Your task to perform on an android device: open app "Messenger Lite" (install if not already installed) and enter user name: "cataclysmic@outlook.com" and password: "victoriously" Image 0: 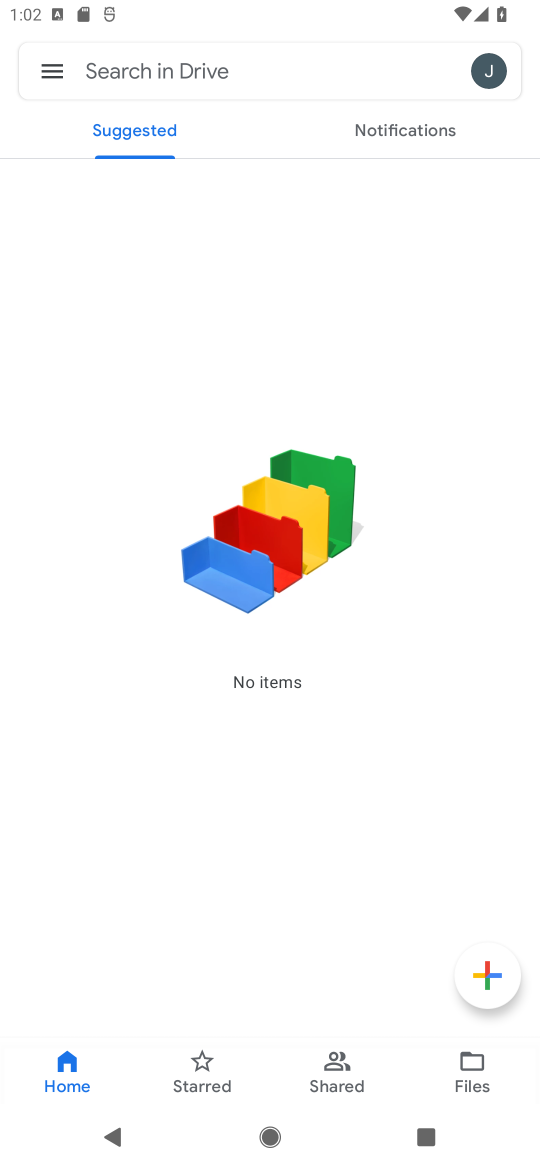
Step 0: press home button
Your task to perform on an android device: open app "Messenger Lite" (install if not already installed) and enter user name: "cataclysmic@outlook.com" and password: "victoriously" Image 1: 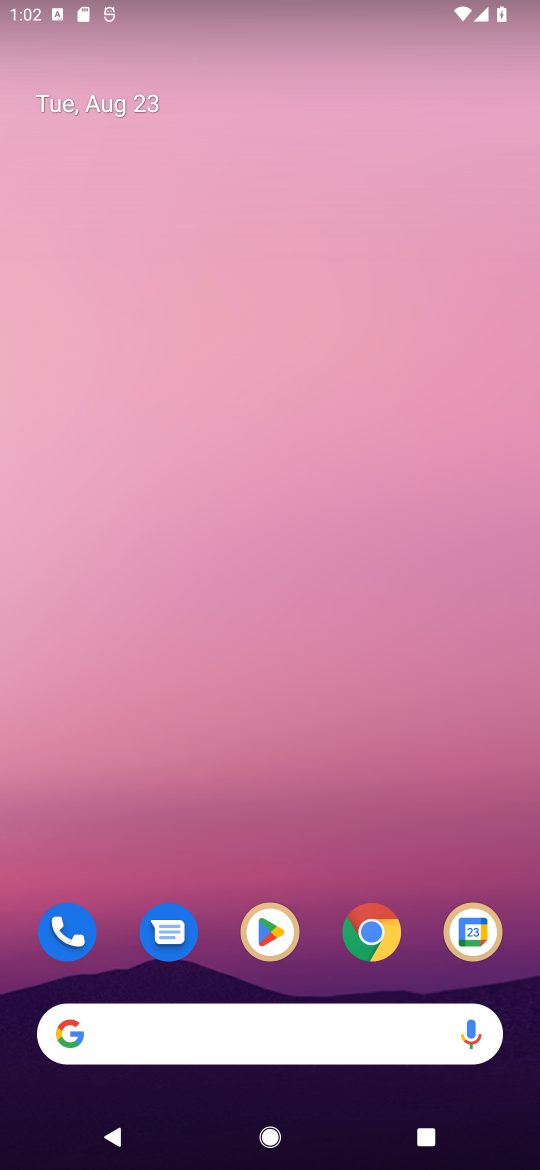
Step 1: click (268, 925)
Your task to perform on an android device: open app "Messenger Lite" (install if not already installed) and enter user name: "cataclysmic@outlook.com" and password: "victoriously" Image 2: 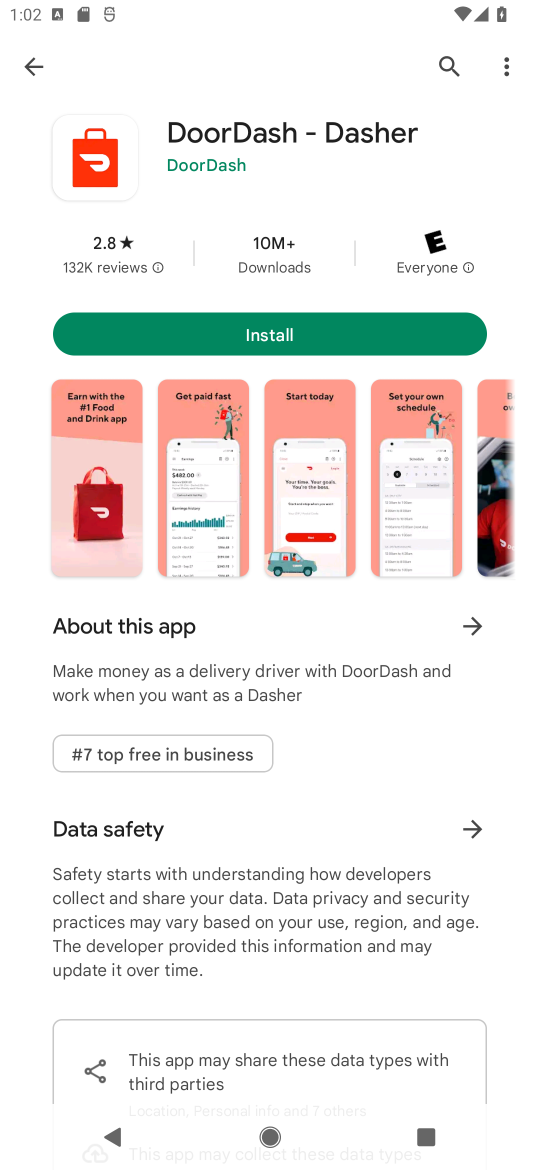
Step 2: click (430, 60)
Your task to perform on an android device: open app "Messenger Lite" (install if not already installed) and enter user name: "cataclysmic@outlook.com" and password: "victoriously" Image 3: 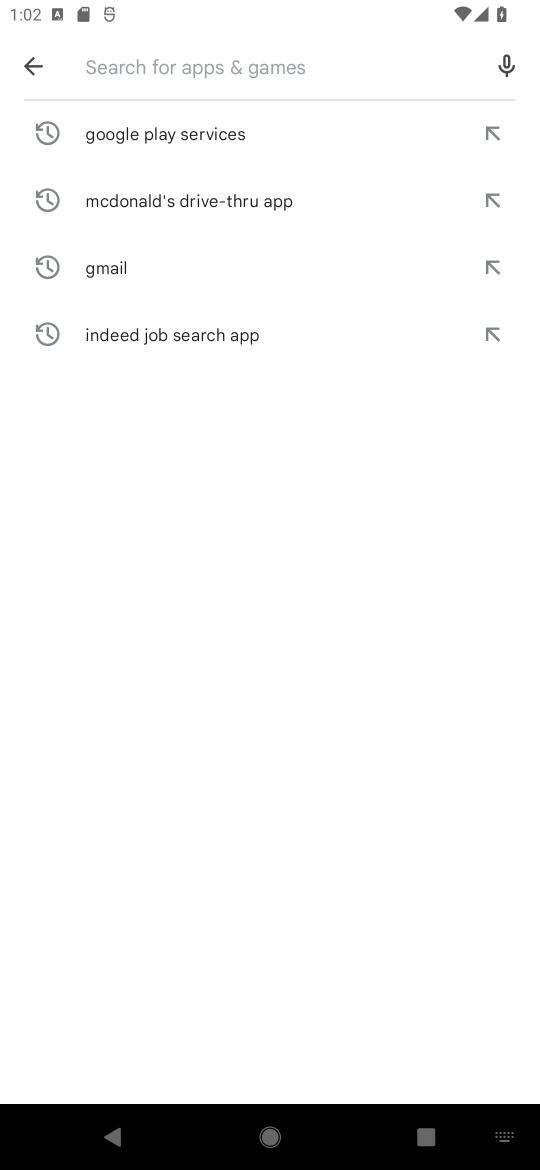
Step 3: click (154, 60)
Your task to perform on an android device: open app "Messenger Lite" (install if not already installed) and enter user name: "cataclysmic@outlook.com" and password: "victoriously" Image 4: 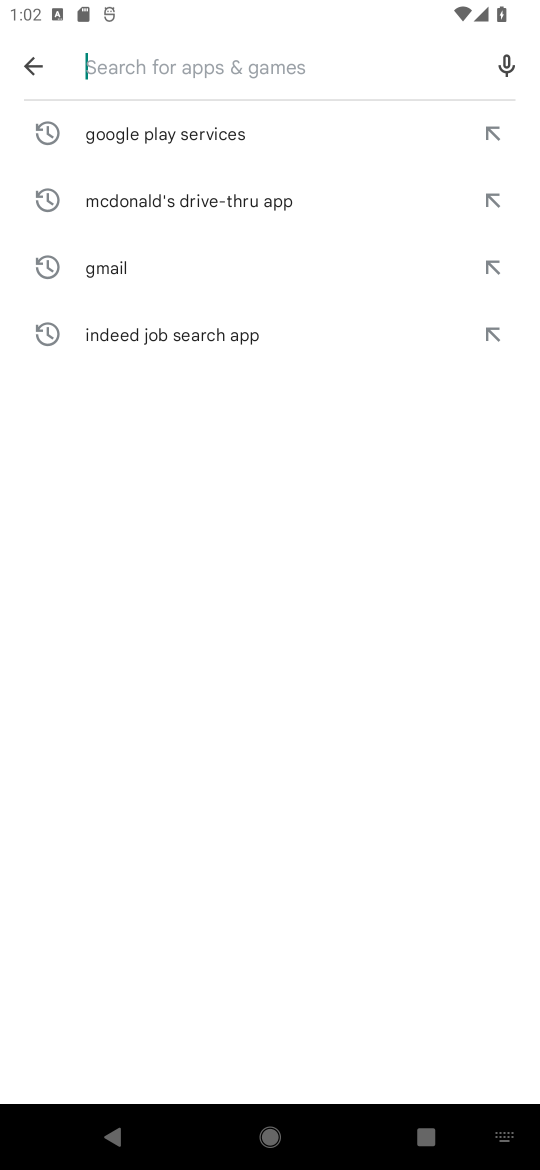
Step 4: type "Messenger Lite"
Your task to perform on an android device: open app "Messenger Lite" (install if not already installed) and enter user name: "cataclysmic@outlook.com" and password: "victoriously" Image 5: 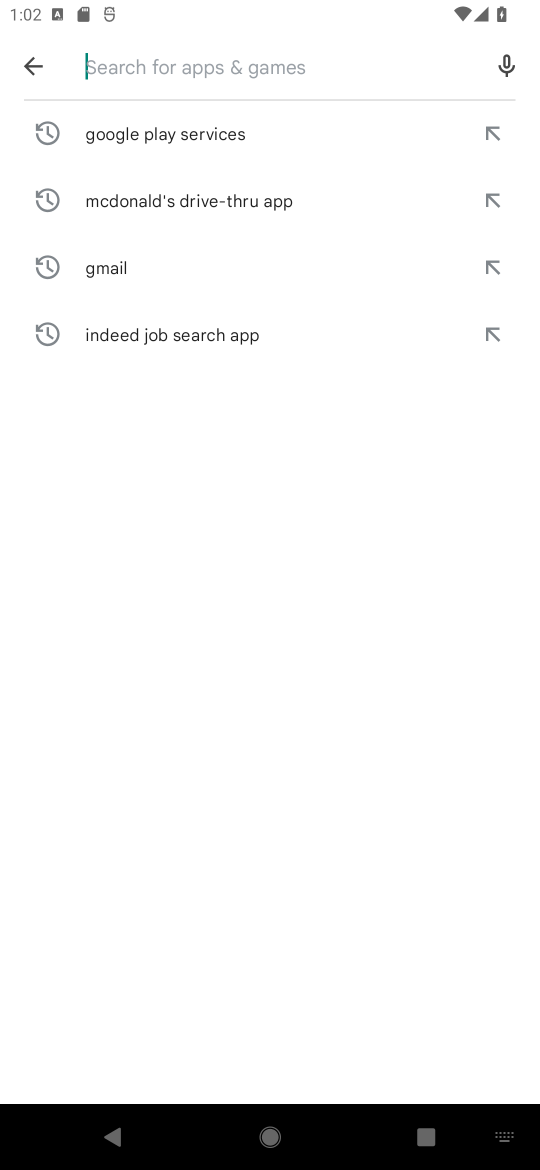
Step 5: click (285, 660)
Your task to perform on an android device: open app "Messenger Lite" (install if not already installed) and enter user name: "cataclysmic@outlook.com" and password: "victoriously" Image 6: 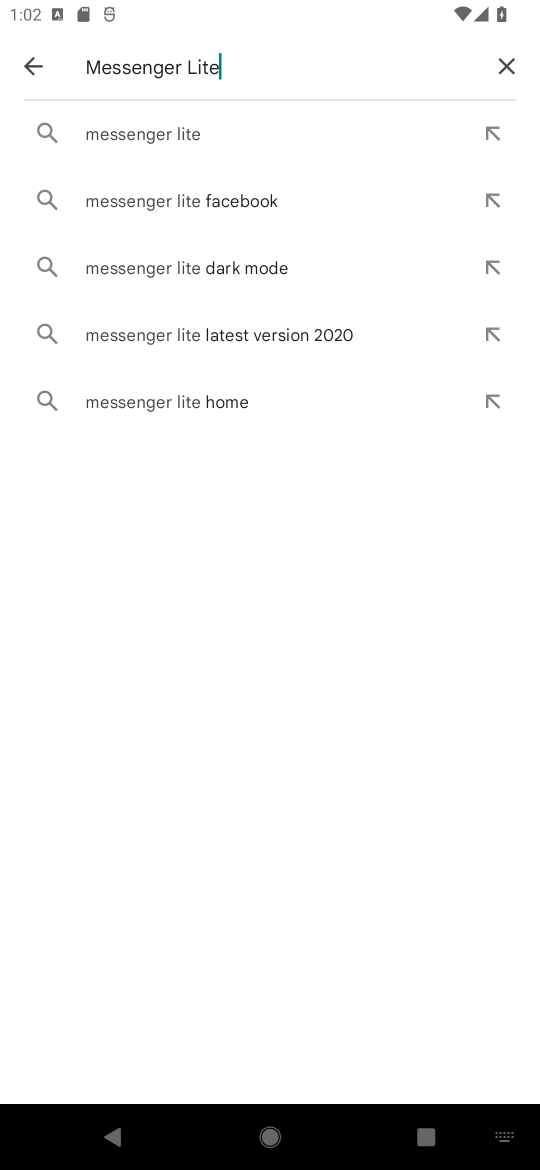
Step 6: click (152, 142)
Your task to perform on an android device: open app "Messenger Lite" (install if not already installed) and enter user name: "cataclysmic@outlook.com" and password: "victoriously" Image 7: 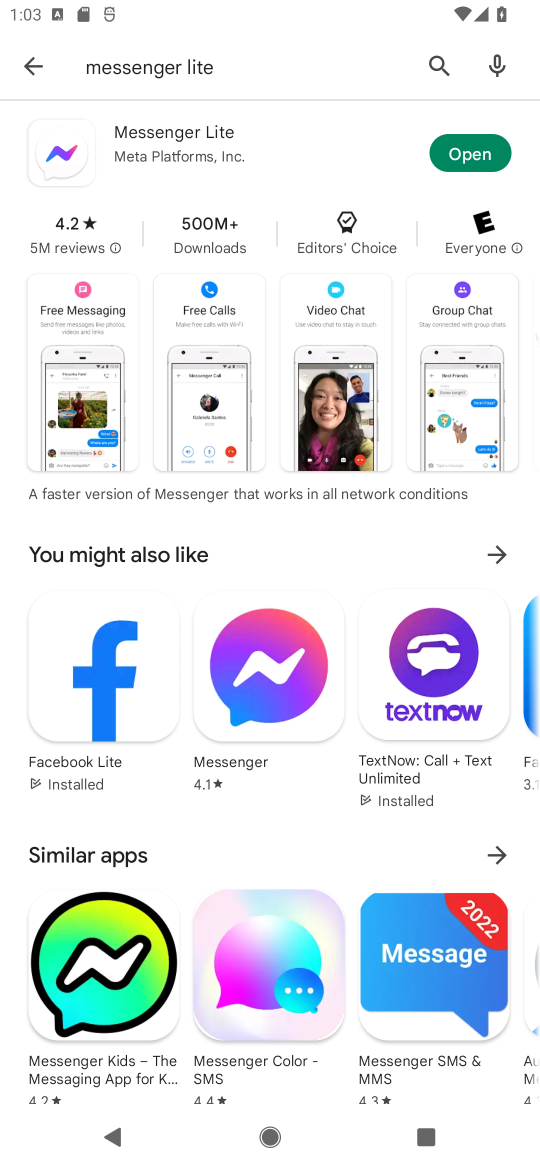
Step 7: click (479, 145)
Your task to perform on an android device: open app "Messenger Lite" (install if not already installed) and enter user name: "cataclysmic@outlook.com" and password: "victoriously" Image 8: 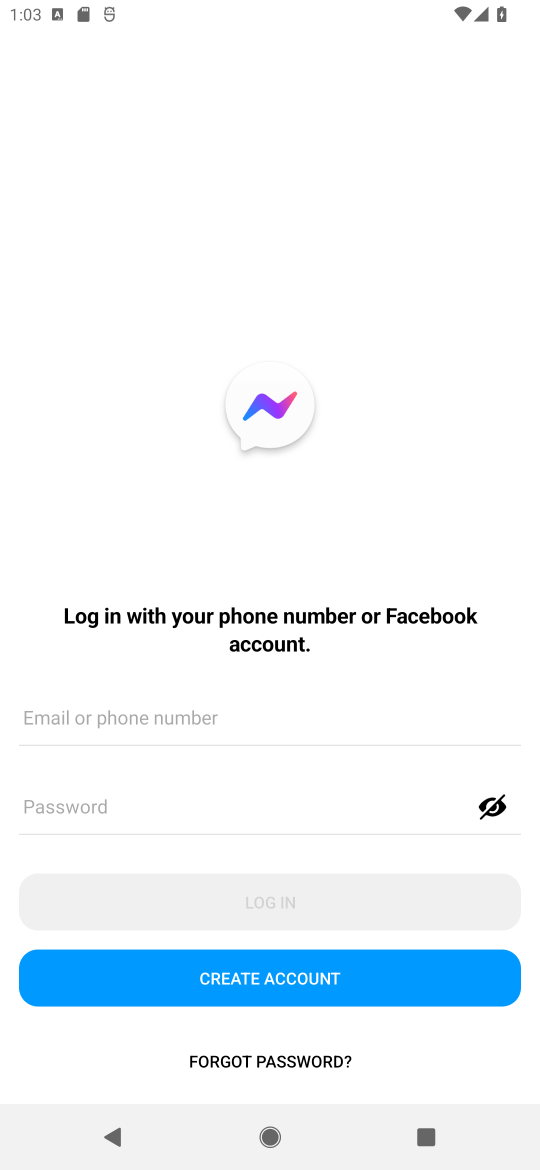
Step 8: click (132, 718)
Your task to perform on an android device: open app "Messenger Lite" (install if not already installed) and enter user name: "cataclysmic@outlook.com" and password: "victoriously" Image 9: 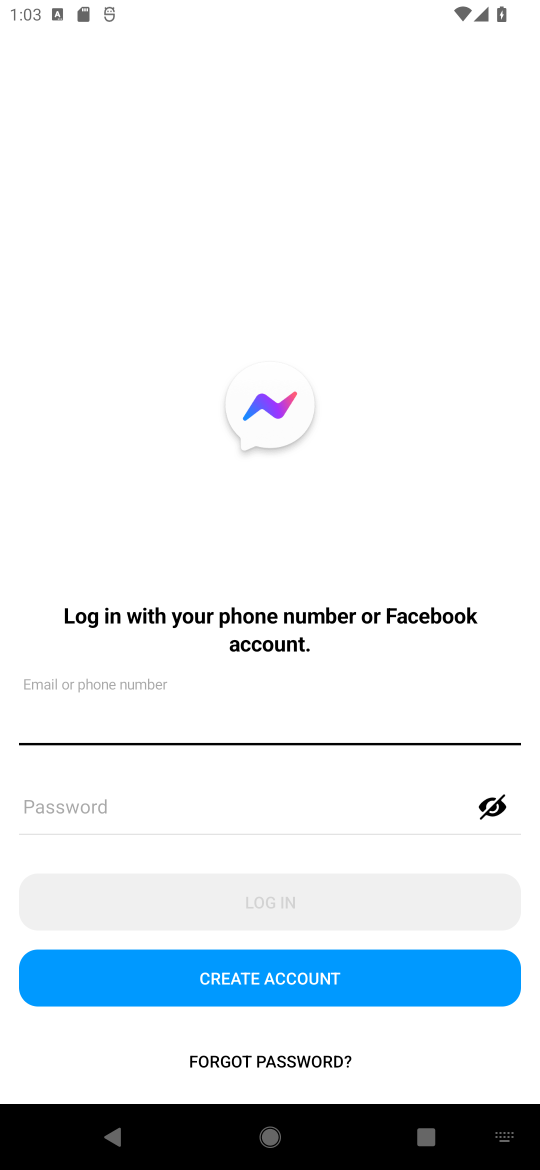
Step 9: click (68, 707)
Your task to perform on an android device: open app "Messenger Lite" (install if not already installed) and enter user name: "cataclysmic@outlook.com" and password: "victoriously" Image 10: 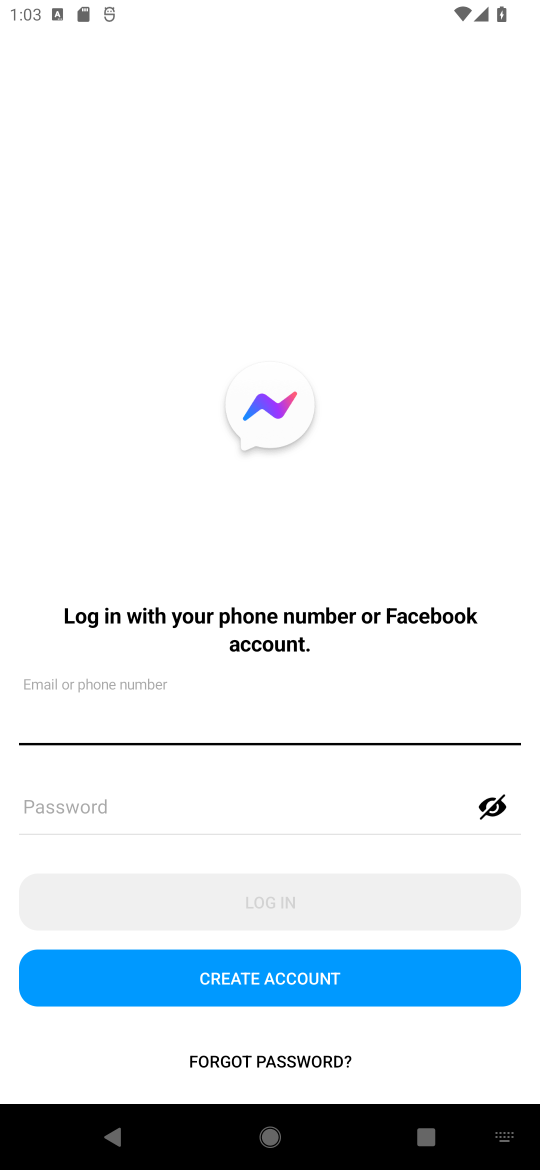
Step 10: type "cataclysmic@outlook.com"
Your task to perform on an android device: open app "Messenger Lite" (install if not already installed) and enter user name: "cataclysmic@outlook.com" and password: "victoriously" Image 11: 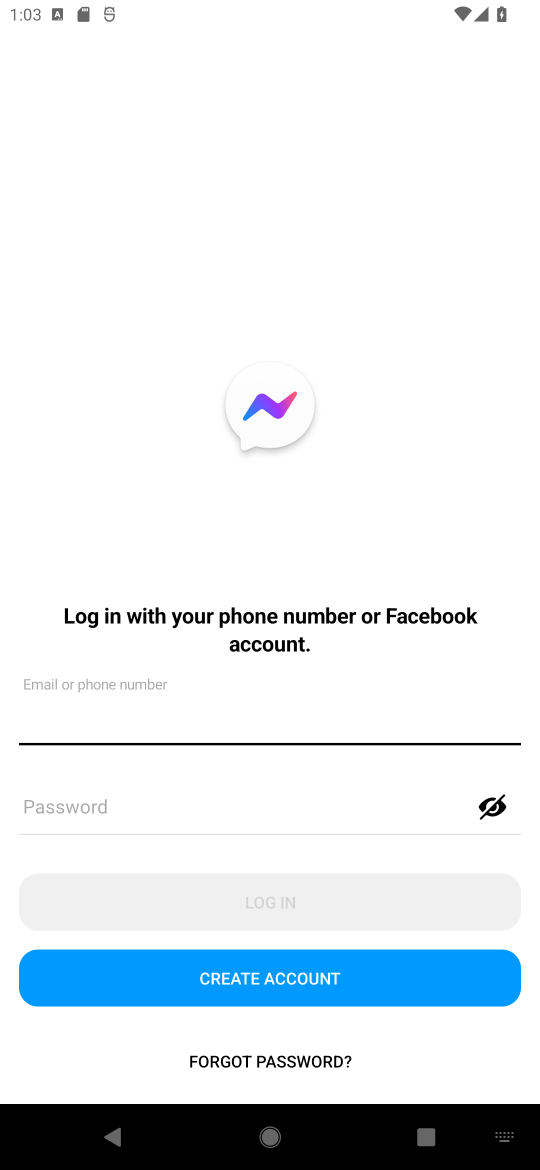
Step 11: click (149, 817)
Your task to perform on an android device: open app "Messenger Lite" (install if not already installed) and enter user name: "cataclysmic@outlook.com" and password: "victoriously" Image 12: 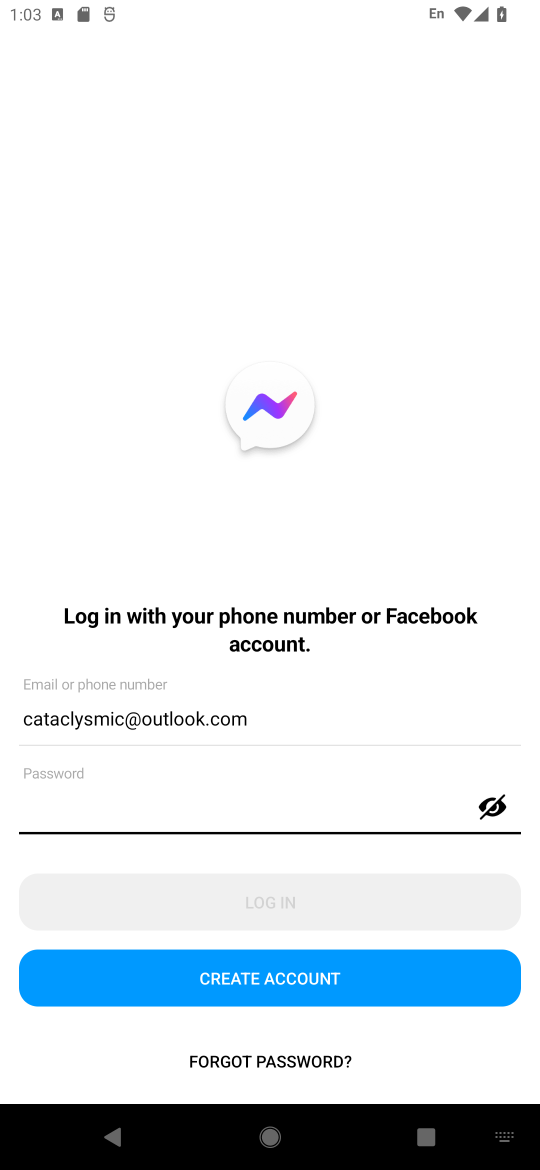
Step 12: click (80, 800)
Your task to perform on an android device: open app "Messenger Lite" (install if not already installed) and enter user name: "cataclysmic@outlook.com" and password: "victoriously" Image 13: 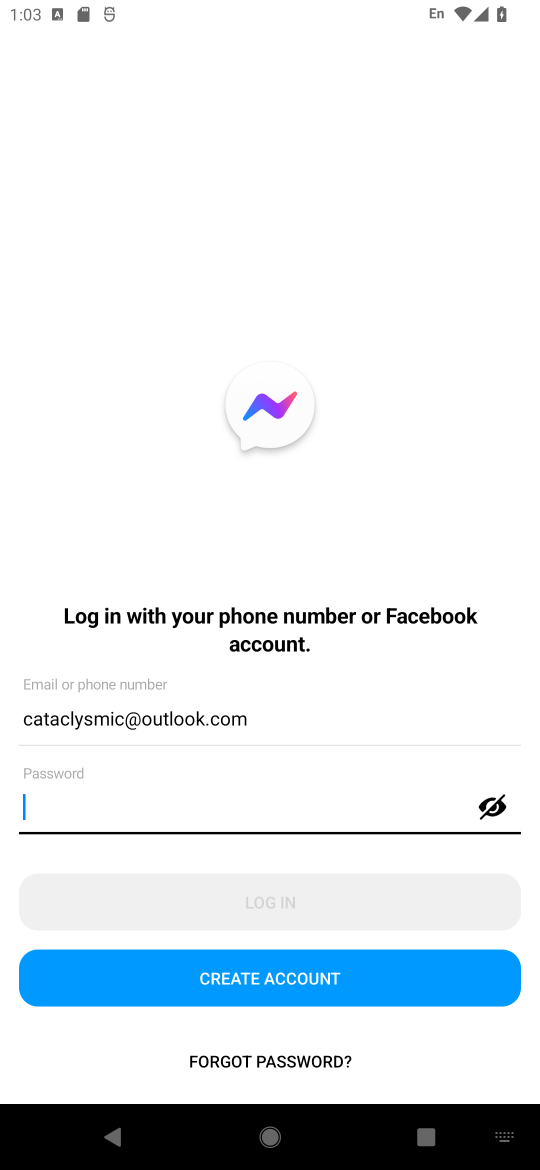
Step 13: type "victoriously"
Your task to perform on an android device: open app "Messenger Lite" (install if not already installed) and enter user name: "cataclysmic@outlook.com" and password: "victoriously" Image 14: 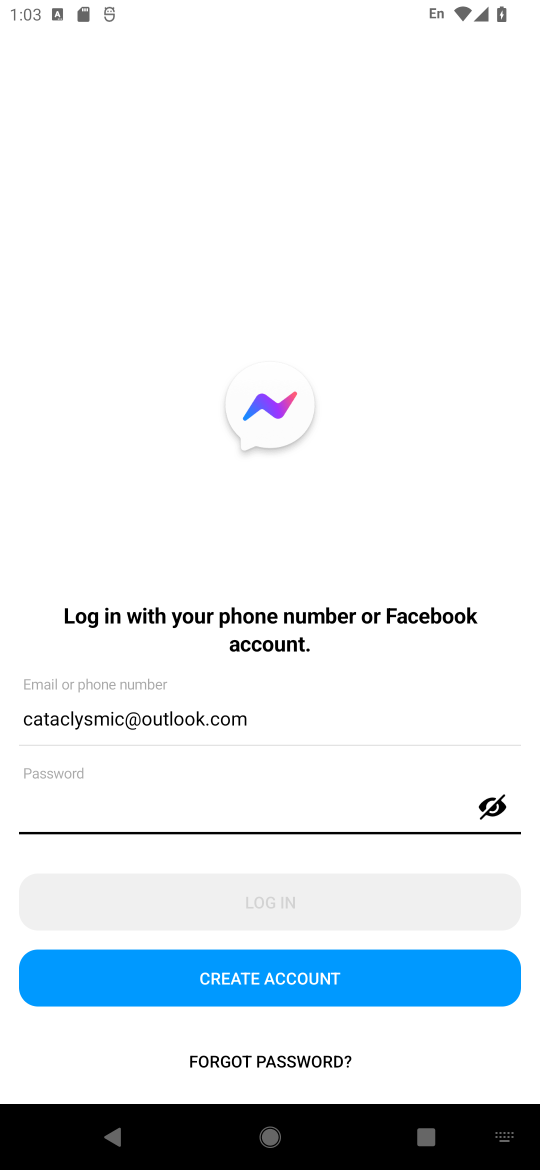
Step 14: click (94, 859)
Your task to perform on an android device: open app "Messenger Lite" (install if not already installed) and enter user name: "cataclysmic@outlook.com" and password: "victoriously" Image 15: 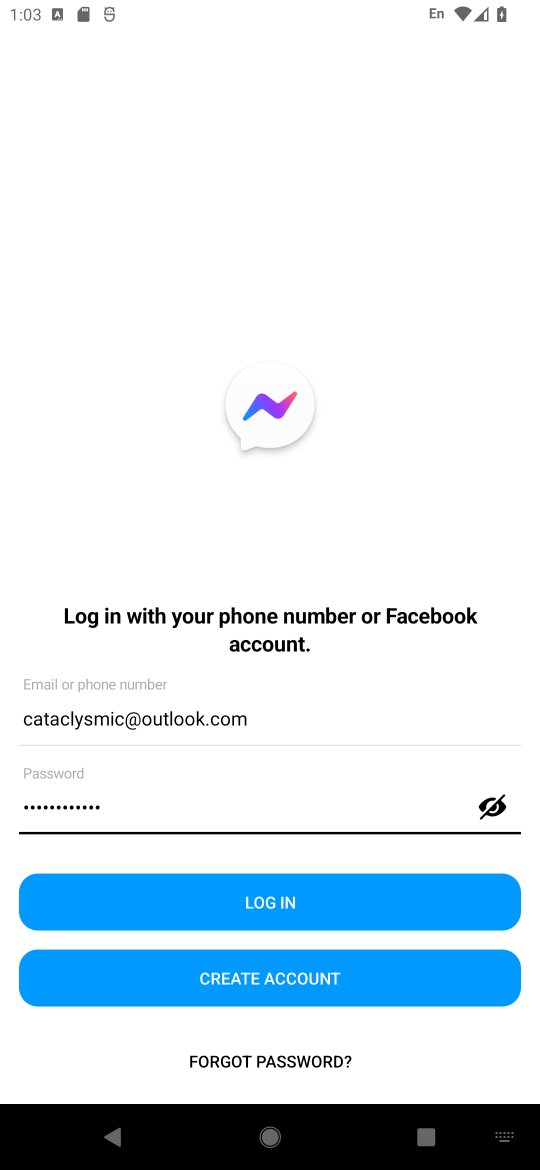
Step 15: task complete